Your task to perform on an android device: read, delete, or share a saved page in the chrome app Image 0: 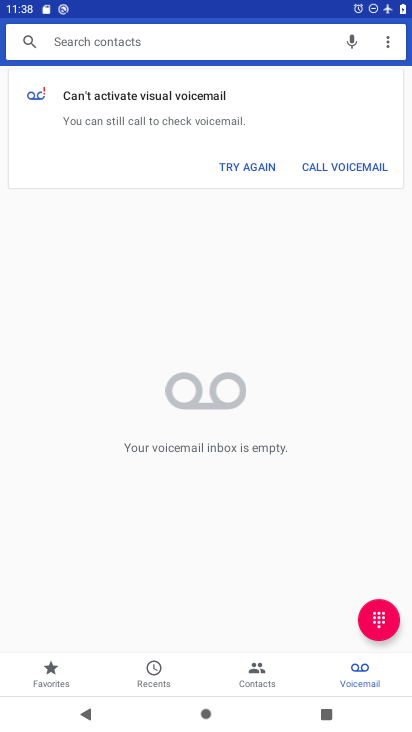
Step 0: press home button
Your task to perform on an android device: read, delete, or share a saved page in the chrome app Image 1: 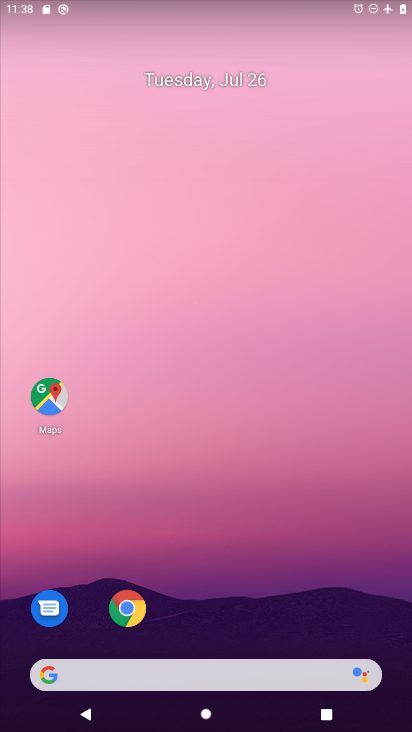
Step 1: drag from (348, 570) to (328, 151)
Your task to perform on an android device: read, delete, or share a saved page in the chrome app Image 2: 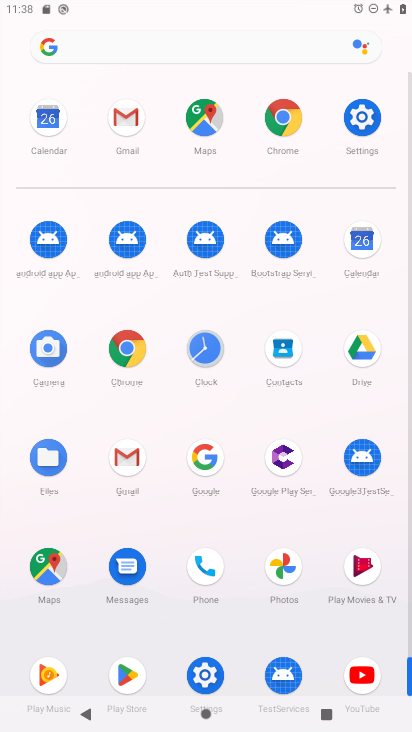
Step 2: click (282, 118)
Your task to perform on an android device: read, delete, or share a saved page in the chrome app Image 3: 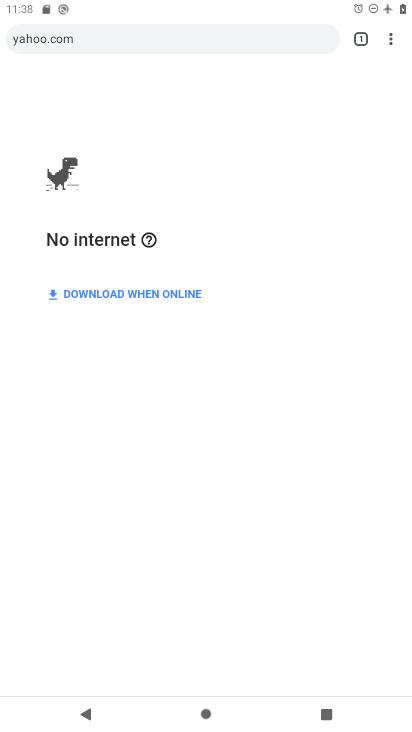
Step 3: task complete